Your task to perform on an android device: Open Google Maps and go to "Timeline" Image 0: 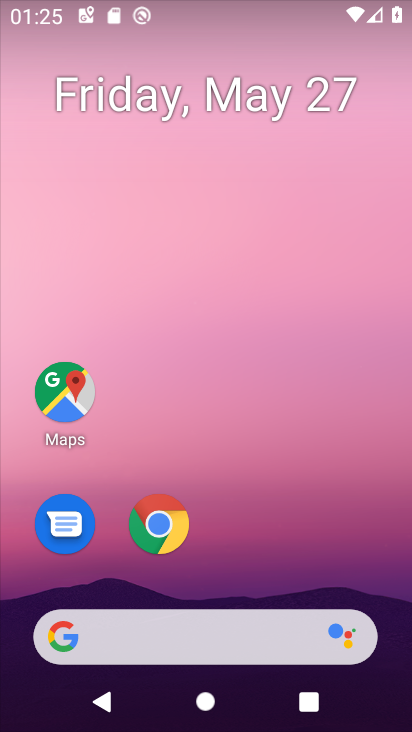
Step 0: click (66, 387)
Your task to perform on an android device: Open Google Maps and go to "Timeline" Image 1: 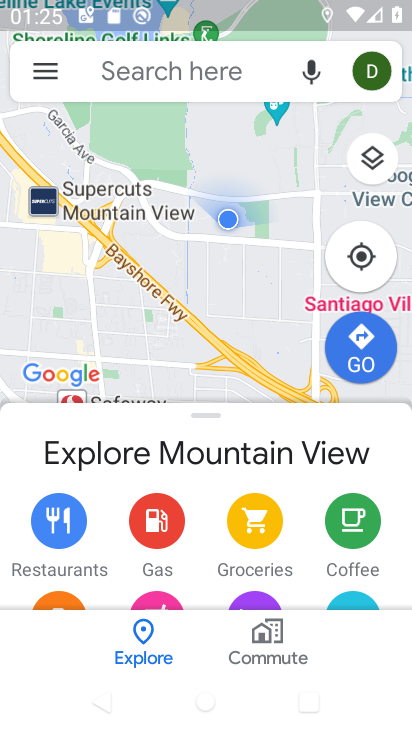
Step 1: click (47, 70)
Your task to perform on an android device: Open Google Maps and go to "Timeline" Image 2: 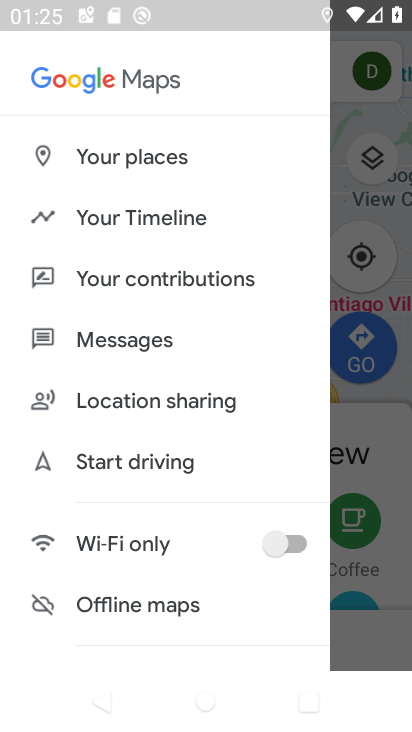
Step 2: click (128, 211)
Your task to perform on an android device: Open Google Maps and go to "Timeline" Image 3: 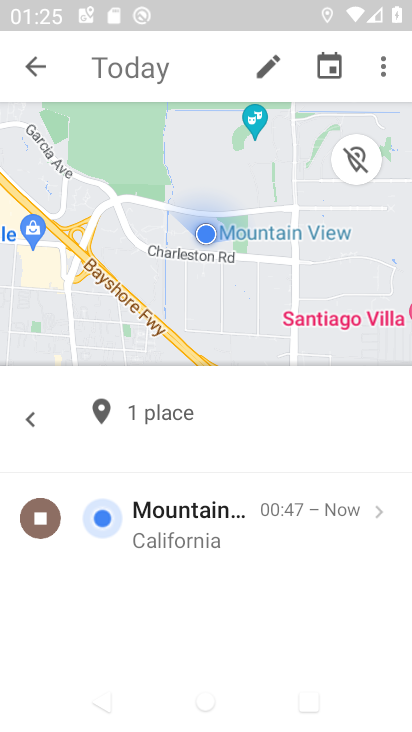
Step 3: task complete